Your task to perform on an android device: Show me popular videos on Youtube Image 0: 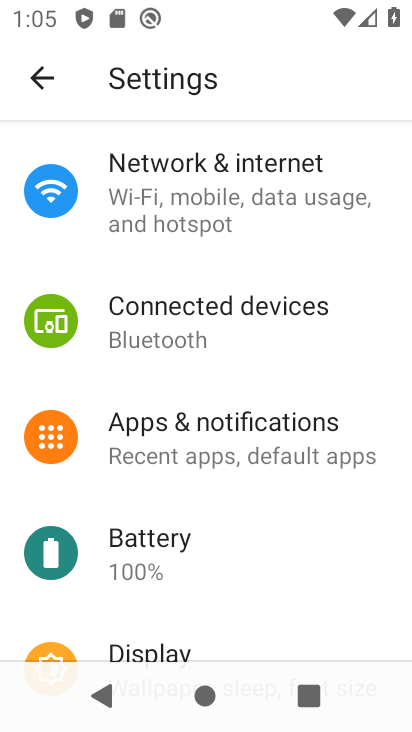
Step 0: press home button
Your task to perform on an android device: Show me popular videos on Youtube Image 1: 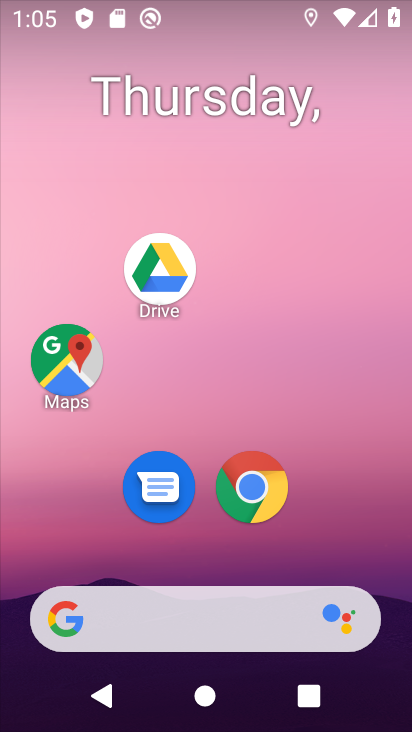
Step 1: drag from (221, 567) to (127, 0)
Your task to perform on an android device: Show me popular videos on Youtube Image 2: 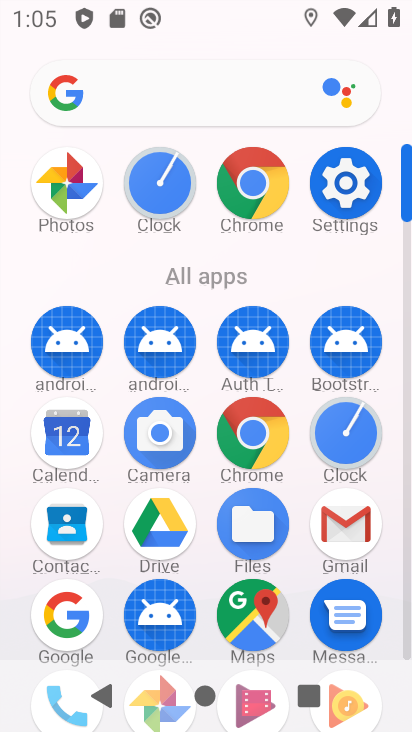
Step 2: drag from (209, 567) to (166, 137)
Your task to perform on an android device: Show me popular videos on Youtube Image 3: 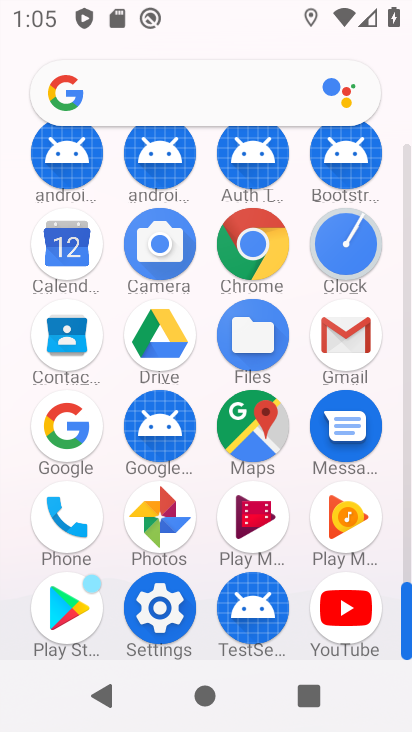
Step 3: click (336, 613)
Your task to perform on an android device: Show me popular videos on Youtube Image 4: 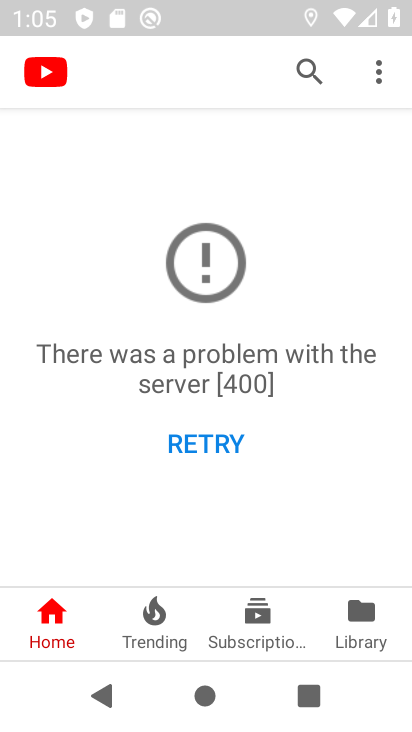
Step 4: task complete